Your task to perform on an android device: Open privacy settings Image 0: 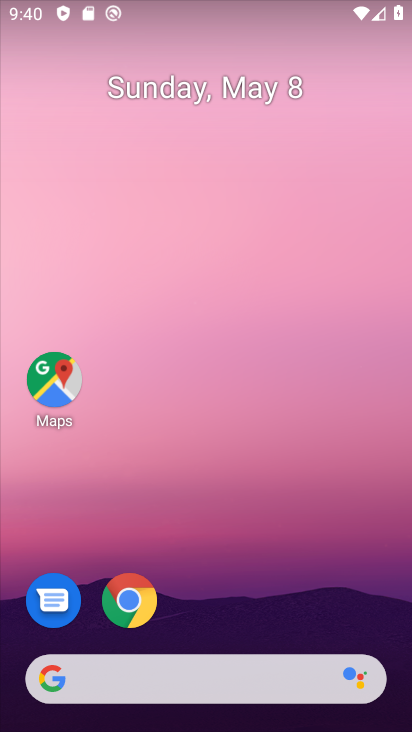
Step 0: drag from (114, 521) to (103, 146)
Your task to perform on an android device: Open privacy settings Image 1: 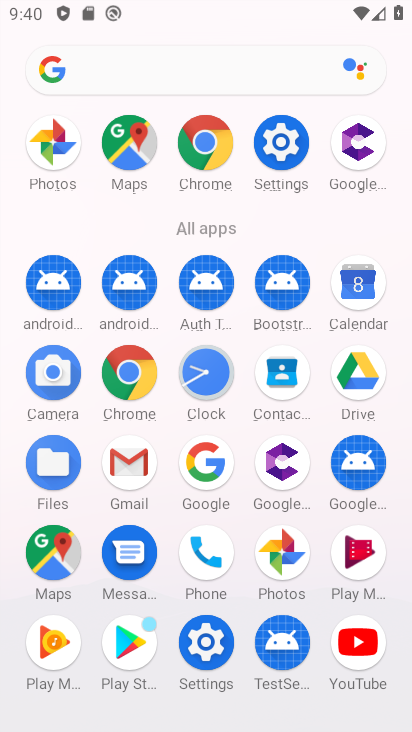
Step 1: click (287, 140)
Your task to perform on an android device: Open privacy settings Image 2: 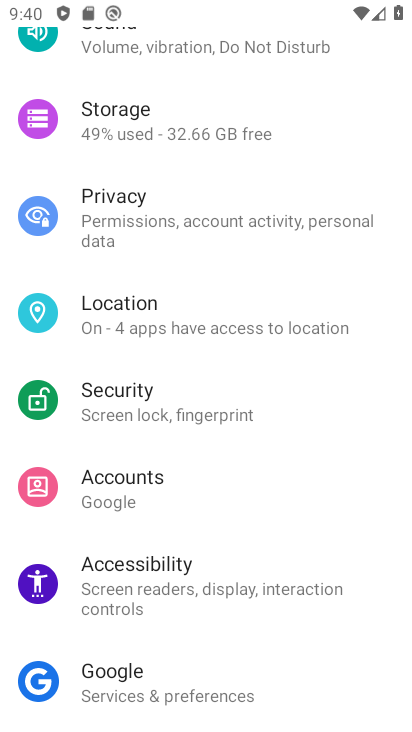
Step 2: click (173, 198)
Your task to perform on an android device: Open privacy settings Image 3: 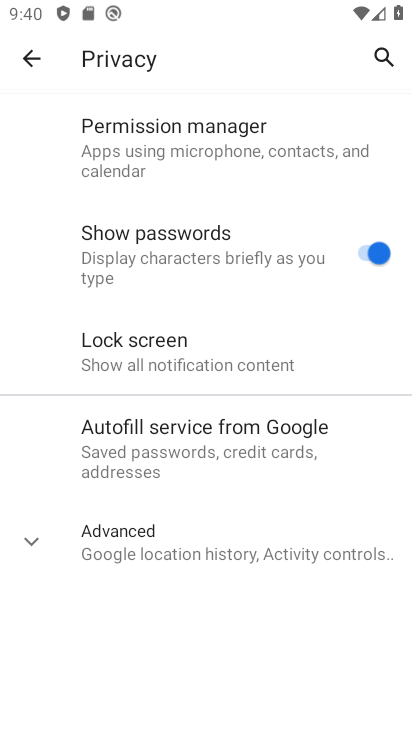
Step 3: task complete